Your task to perform on an android device: Open ESPN.com Image 0: 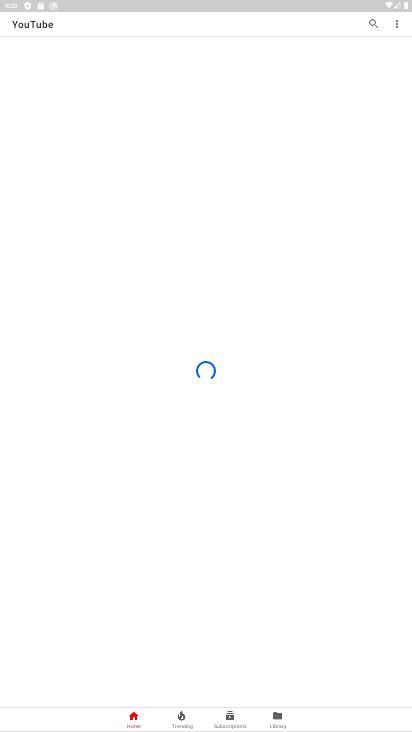
Step 0: press home button
Your task to perform on an android device: Open ESPN.com Image 1: 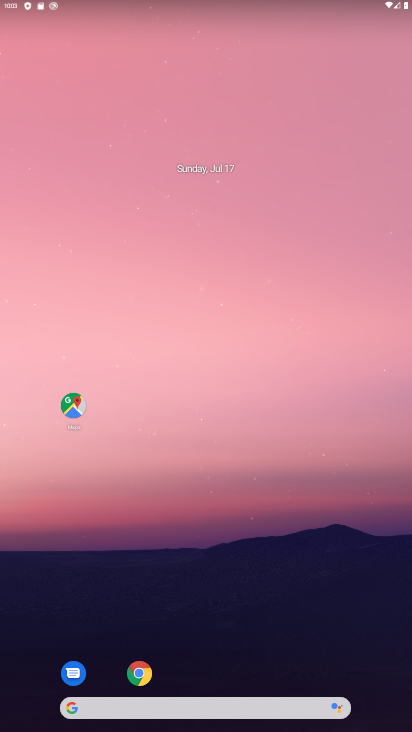
Step 1: click (138, 679)
Your task to perform on an android device: Open ESPN.com Image 2: 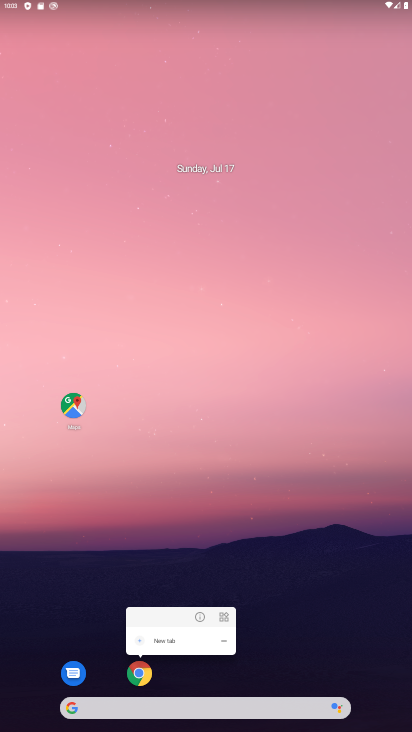
Step 2: click (138, 675)
Your task to perform on an android device: Open ESPN.com Image 3: 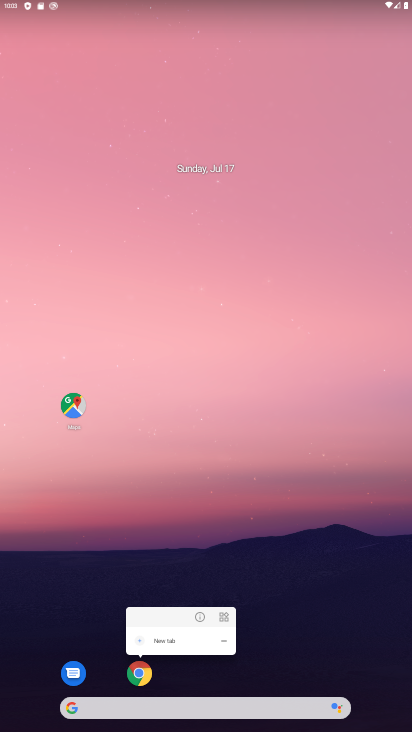
Step 3: click (138, 670)
Your task to perform on an android device: Open ESPN.com Image 4: 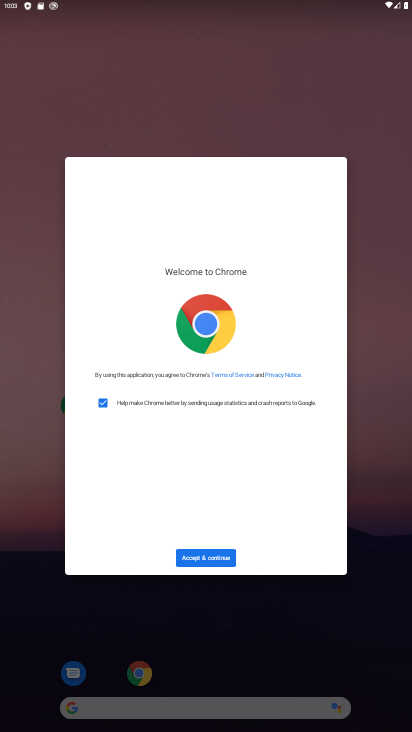
Step 4: click (203, 547)
Your task to perform on an android device: Open ESPN.com Image 5: 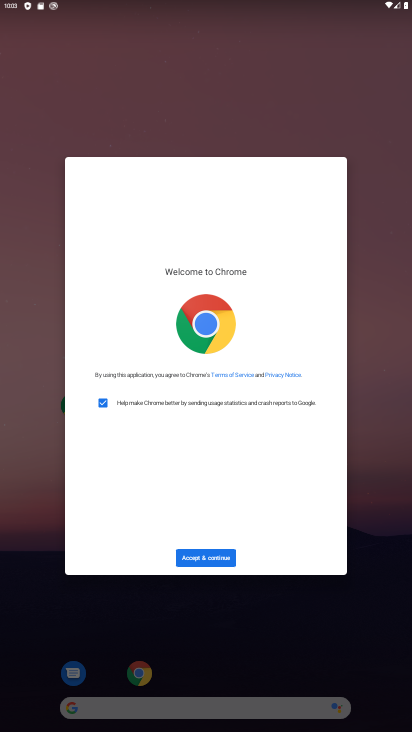
Step 5: click (212, 555)
Your task to perform on an android device: Open ESPN.com Image 6: 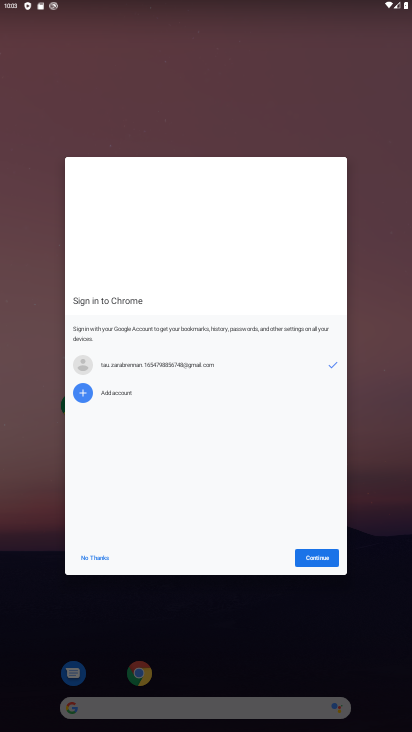
Step 6: click (346, 555)
Your task to perform on an android device: Open ESPN.com Image 7: 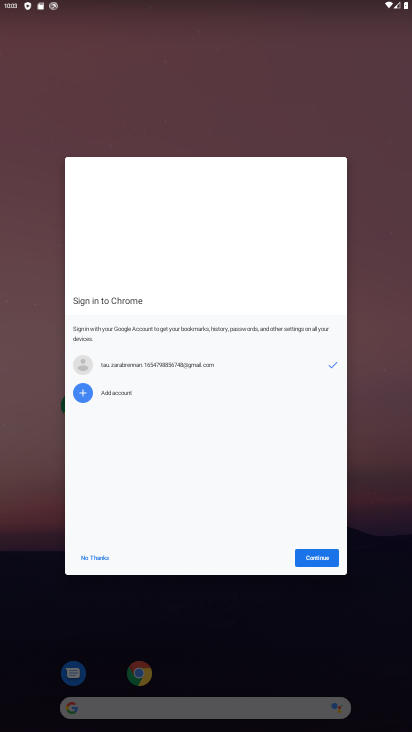
Step 7: click (330, 556)
Your task to perform on an android device: Open ESPN.com Image 8: 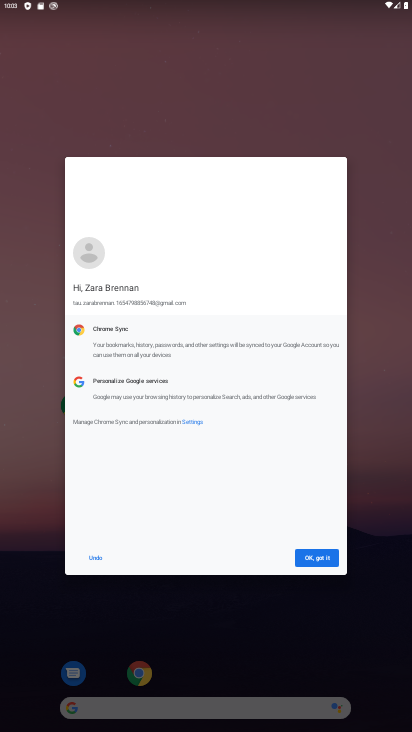
Step 8: click (329, 556)
Your task to perform on an android device: Open ESPN.com Image 9: 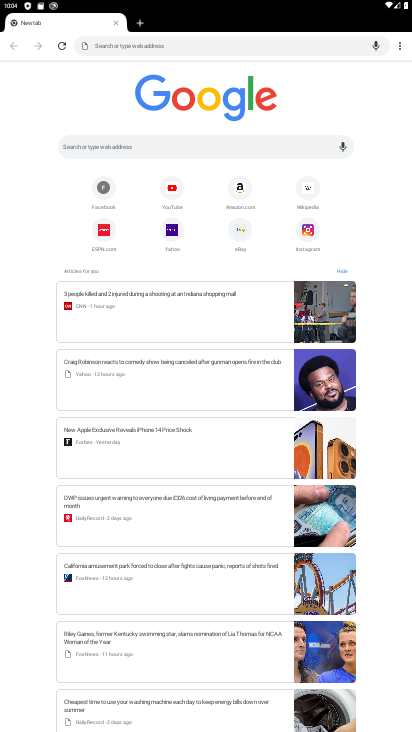
Step 9: click (115, 233)
Your task to perform on an android device: Open ESPN.com Image 10: 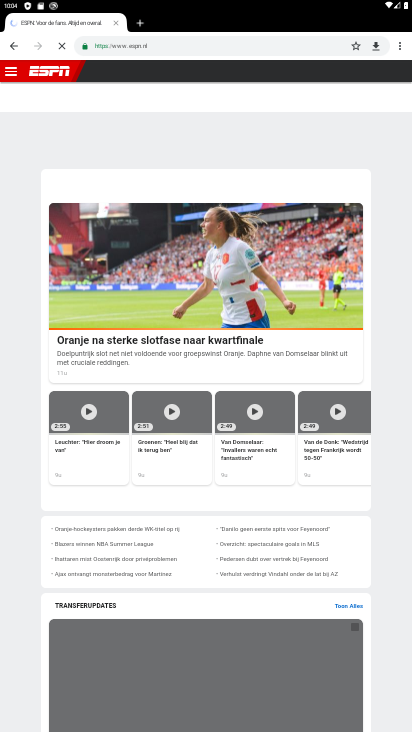
Step 10: task complete